Your task to perform on an android device: toggle pop-ups in chrome Image 0: 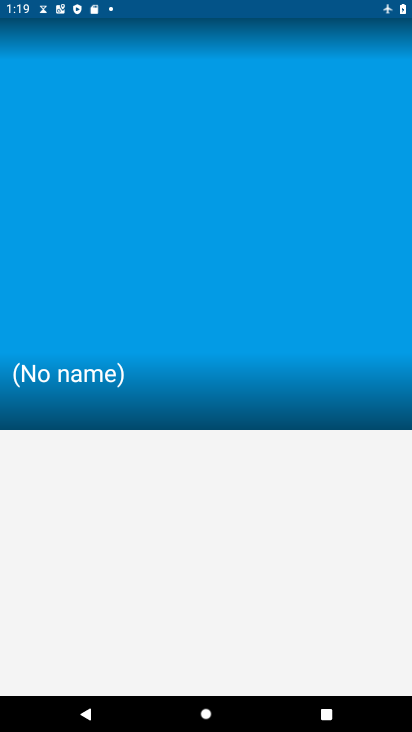
Step 0: drag from (245, 605) to (320, 97)
Your task to perform on an android device: toggle pop-ups in chrome Image 1: 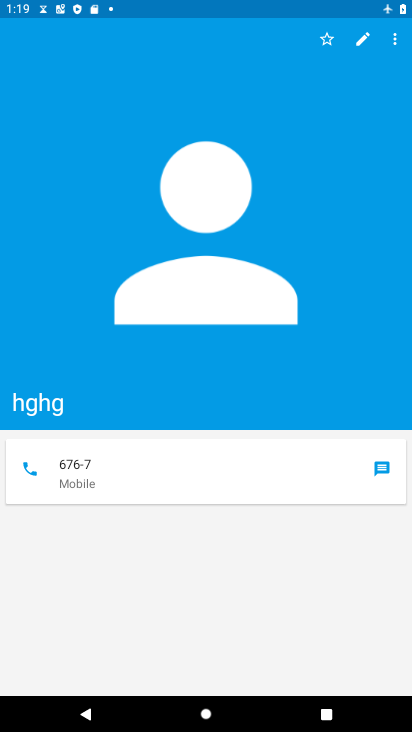
Step 1: press back button
Your task to perform on an android device: toggle pop-ups in chrome Image 2: 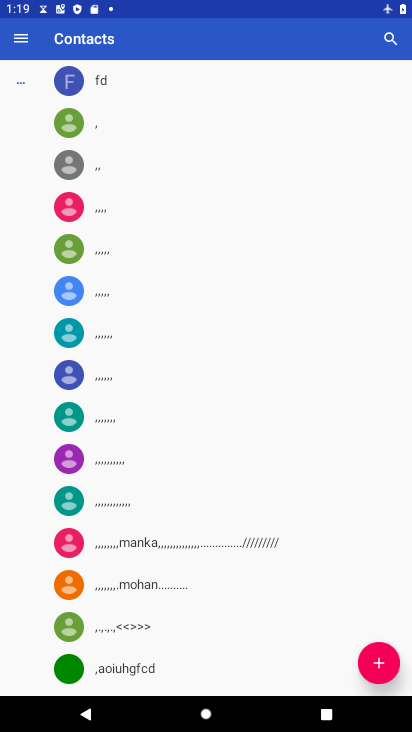
Step 2: press home button
Your task to perform on an android device: toggle pop-ups in chrome Image 3: 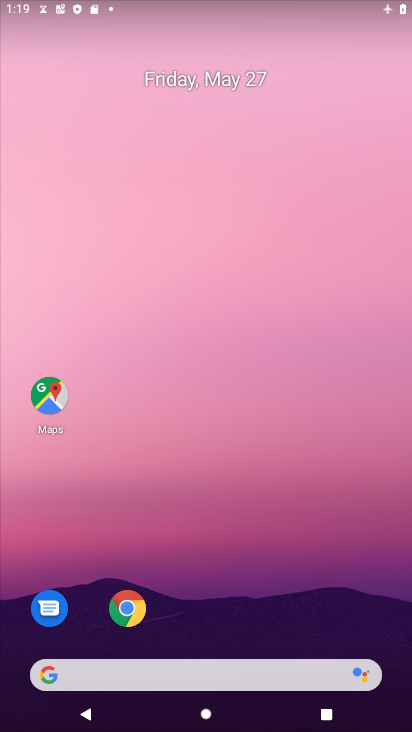
Step 3: click (118, 609)
Your task to perform on an android device: toggle pop-ups in chrome Image 4: 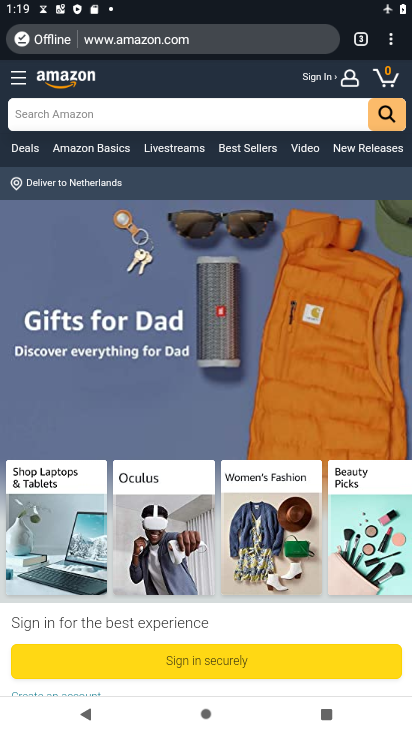
Step 4: drag from (386, 37) to (260, 440)
Your task to perform on an android device: toggle pop-ups in chrome Image 5: 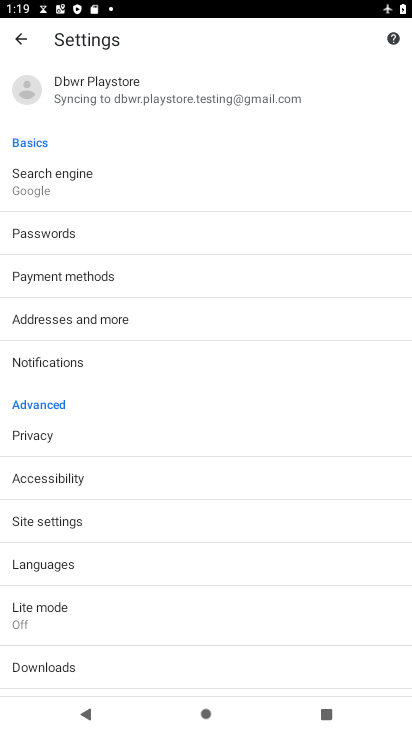
Step 5: drag from (102, 618) to (141, 363)
Your task to perform on an android device: toggle pop-ups in chrome Image 6: 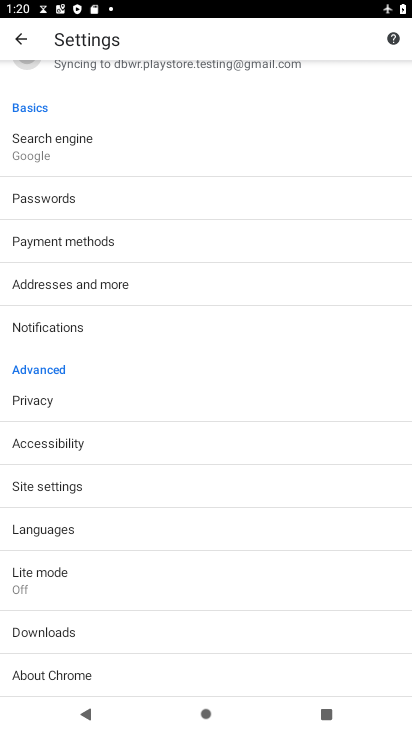
Step 6: click (75, 479)
Your task to perform on an android device: toggle pop-ups in chrome Image 7: 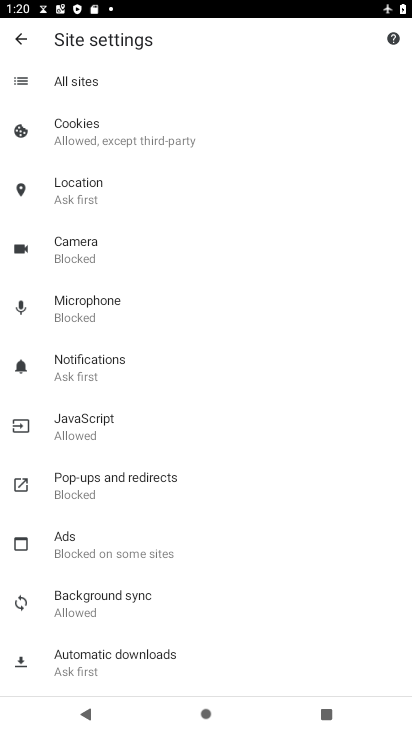
Step 7: click (96, 480)
Your task to perform on an android device: toggle pop-ups in chrome Image 8: 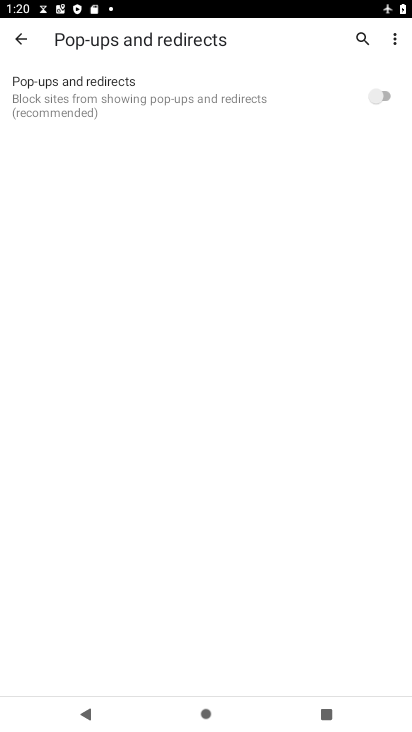
Step 8: click (376, 99)
Your task to perform on an android device: toggle pop-ups in chrome Image 9: 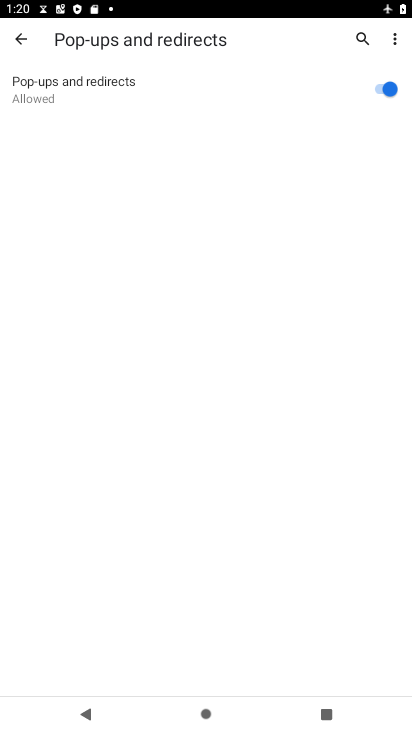
Step 9: task complete